Your task to perform on an android device: Go to settings Image 0: 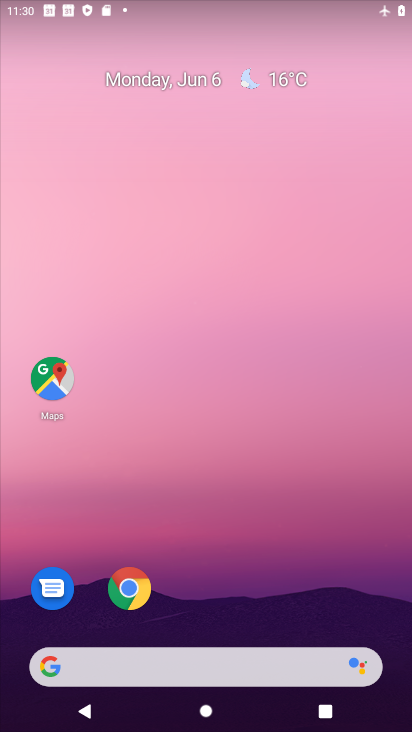
Step 0: drag from (291, 612) to (188, 116)
Your task to perform on an android device: Go to settings Image 1: 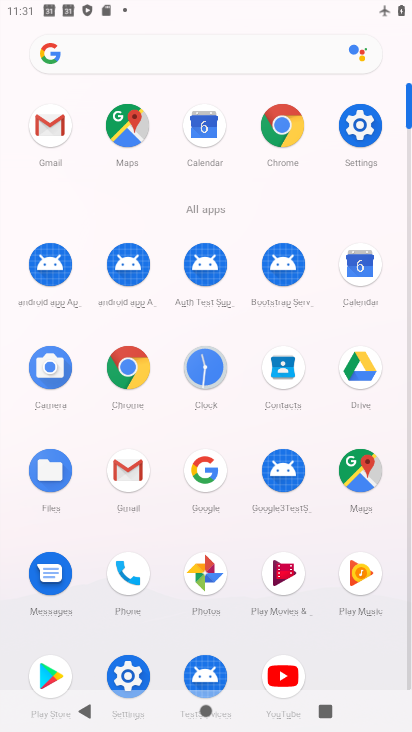
Step 1: click (359, 126)
Your task to perform on an android device: Go to settings Image 2: 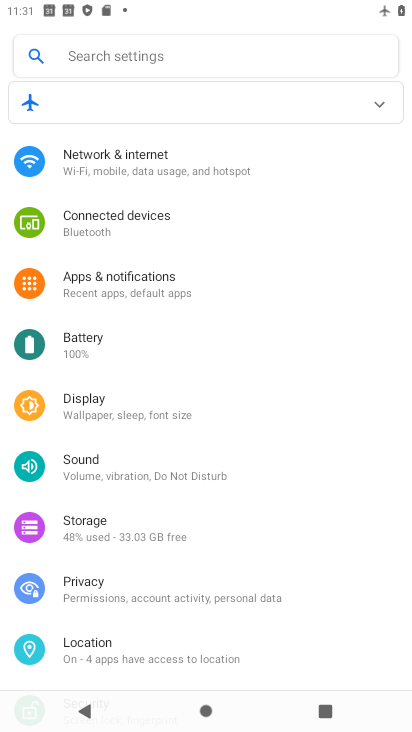
Step 2: task complete